Your task to perform on an android device: delete the emails in spam in the gmail app Image 0: 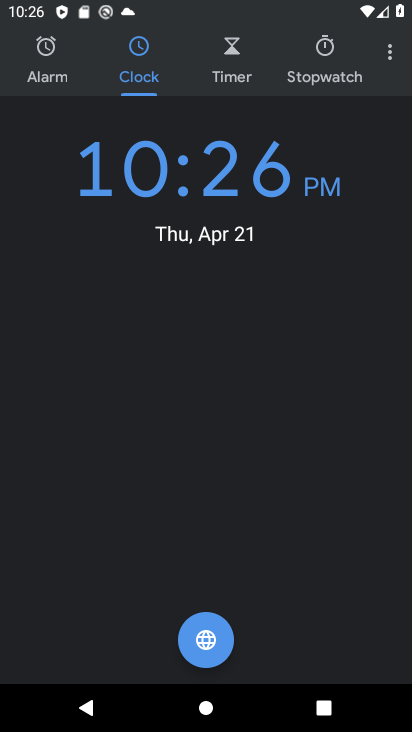
Step 0: press home button
Your task to perform on an android device: delete the emails in spam in the gmail app Image 1: 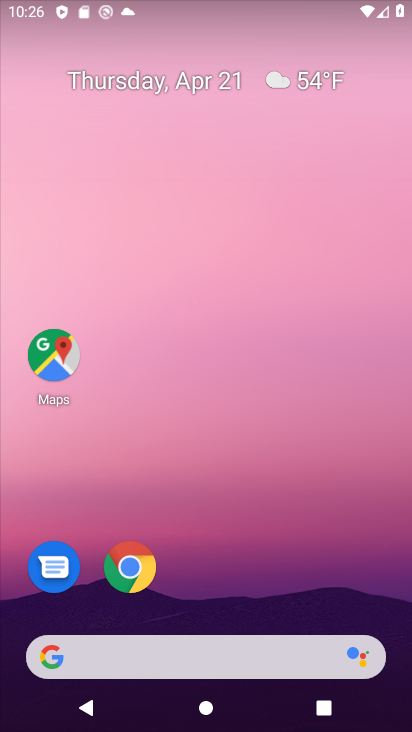
Step 1: drag from (231, 528) to (192, 27)
Your task to perform on an android device: delete the emails in spam in the gmail app Image 2: 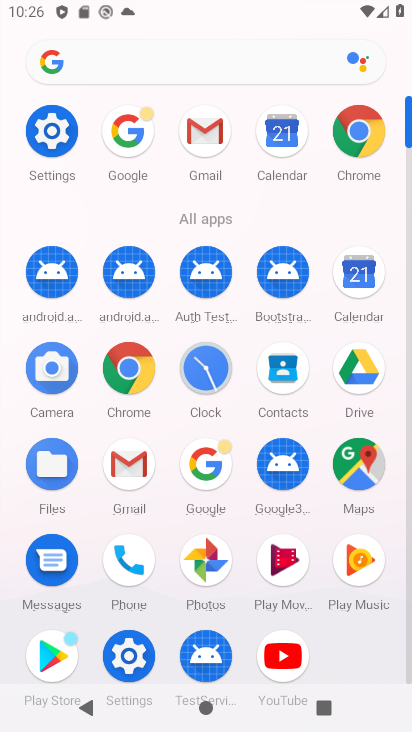
Step 2: click (210, 130)
Your task to perform on an android device: delete the emails in spam in the gmail app Image 3: 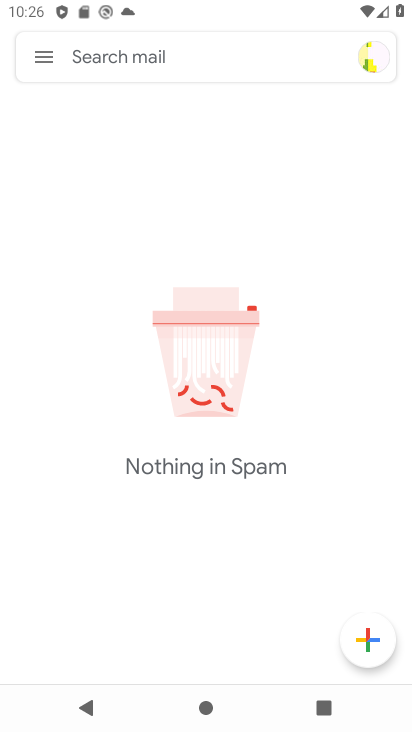
Step 3: task complete